Your task to perform on an android device: Search for sushi restaurants on Maps Image 0: 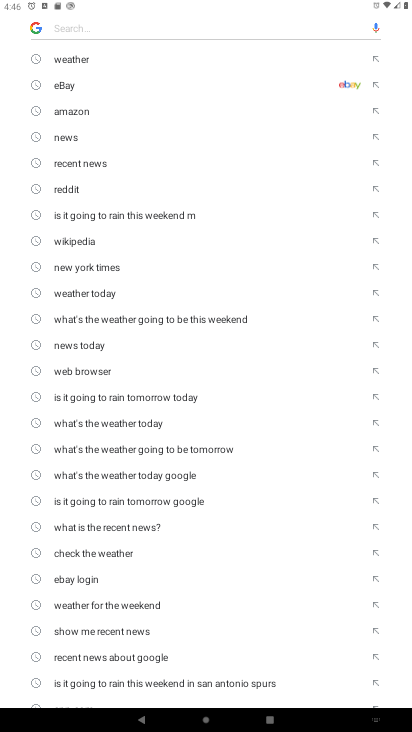
Step 0: press home button
Your task to perform on an android device: Search for sushi restaurants on Maps Image 1: 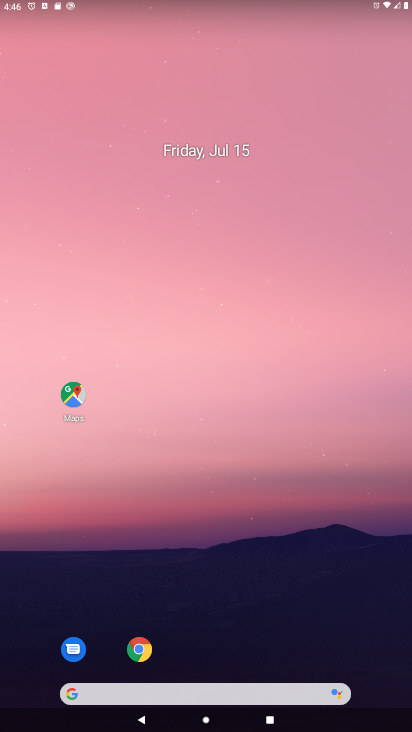
Step 1: click (72, 397)
Your task to perform on an android device: Search for sushi restaurants on Maps Image 2: 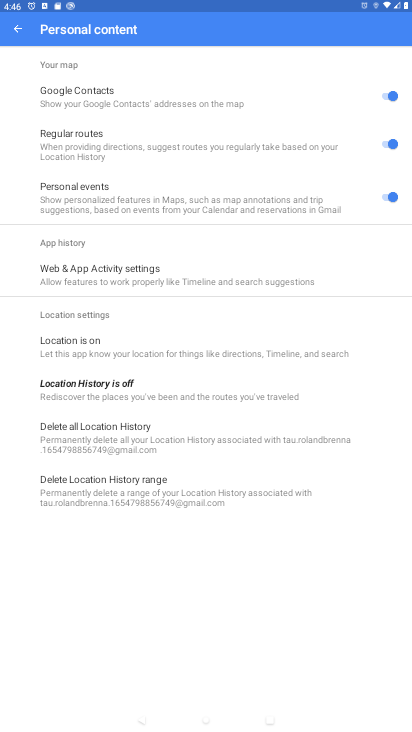
Step 2: press back button
Your task to perform on an android device: Search for sushi restaurants on Maps Image 3: 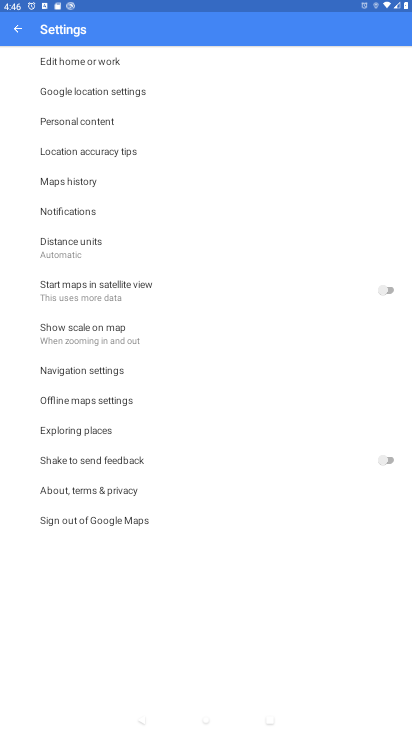
Step 3: press back button
Your task to perform on an android device: Search for sushi restaurants on Maps Image 4: 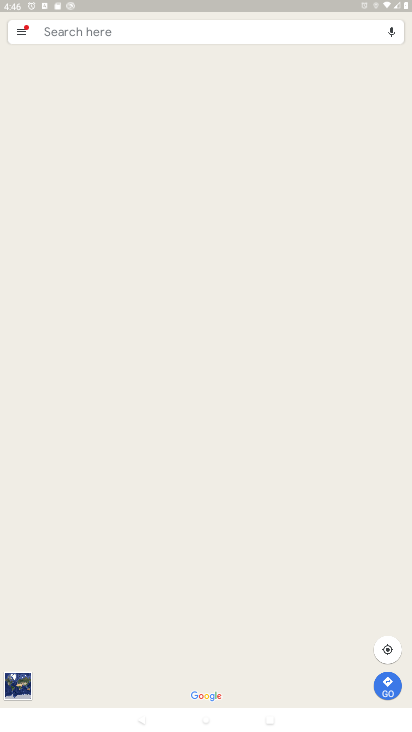
Step 4: click (86, 23)
Your task to perform on an android device: Search for sushi restaurants on Maps Image 5: 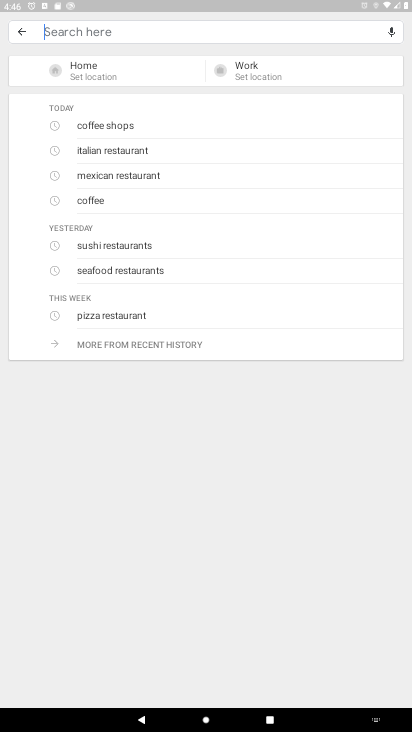
Step 5: type "sushi restaurants"
Your task to perform on an android device: Search for sushi restaurants on Maps Image 6: 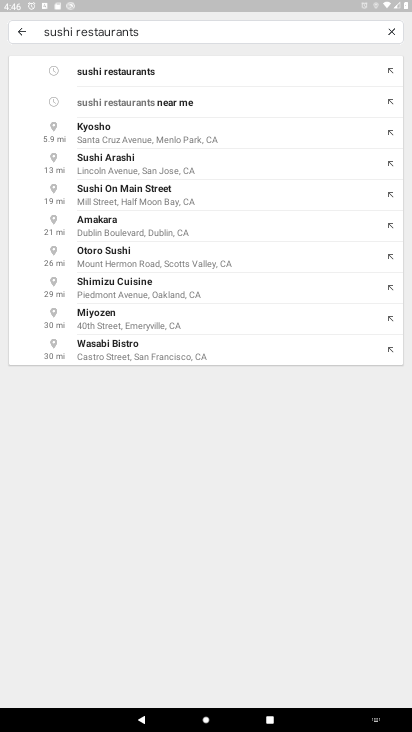
Step 6: click (112, 78)
Your task to perform on an android device: Search for sushi restaurants on Maps Image 7: 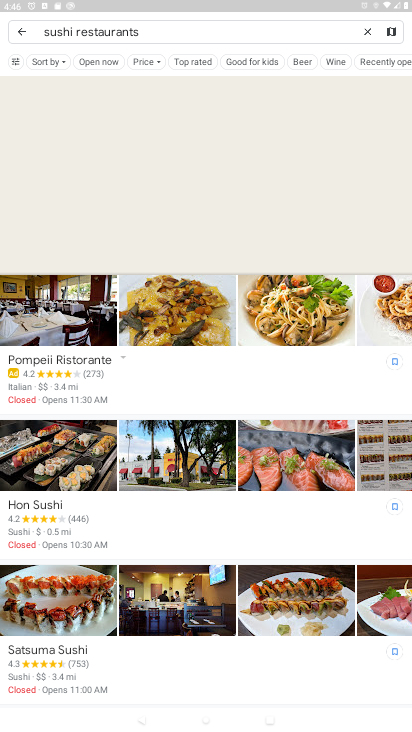
Step 7: task complete